Your task to perform on an android device: Toggle the flashlight Image 0: 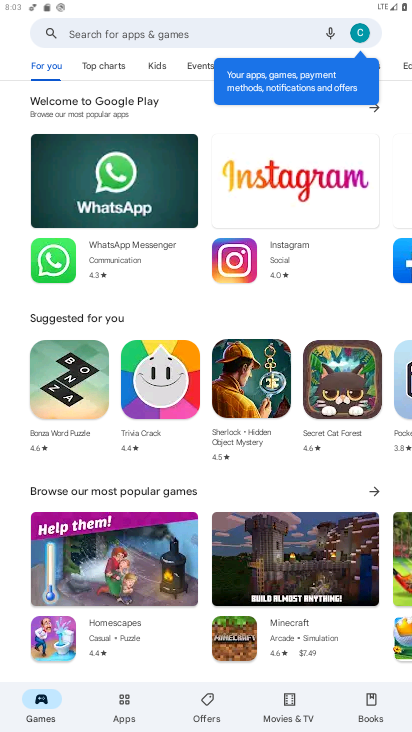
Step 0: press home button
Your task to perform on an android device: Toggle the flashlight Image 1: 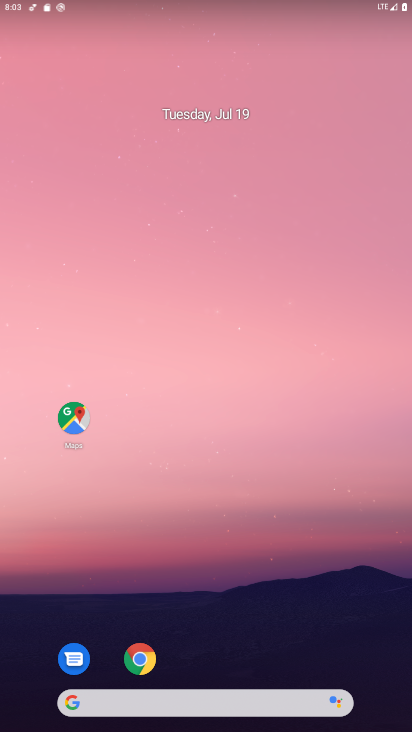
Step 1: drag from (203, 599) to (10, 207)
Your task to perform on an android device: Toggle the flashlight Image 2: 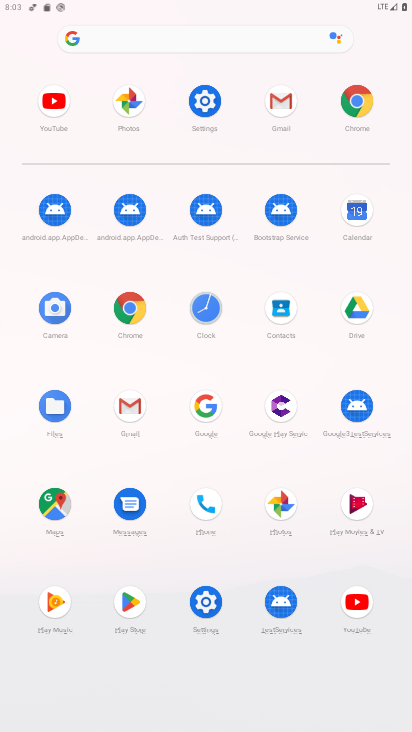
Step 2: click (196, 75)
Your task to perform on an android device: Toggle the flashlight Image 3: 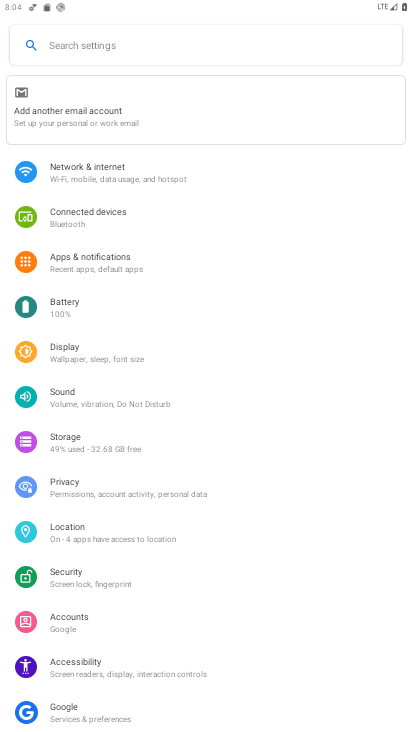
Step 3: click (155, 41)
Your task to perform on an android device: Toggle the flashlight Image 4: 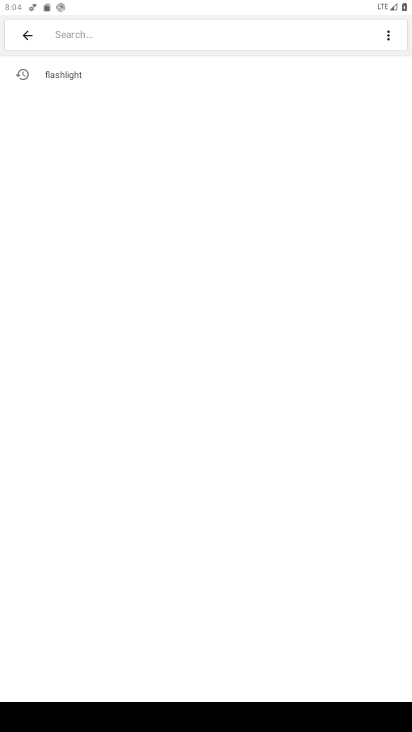
Step 4: type "flashlight"
Your task to perform on an android device: Toggle the flashlight Image 5: 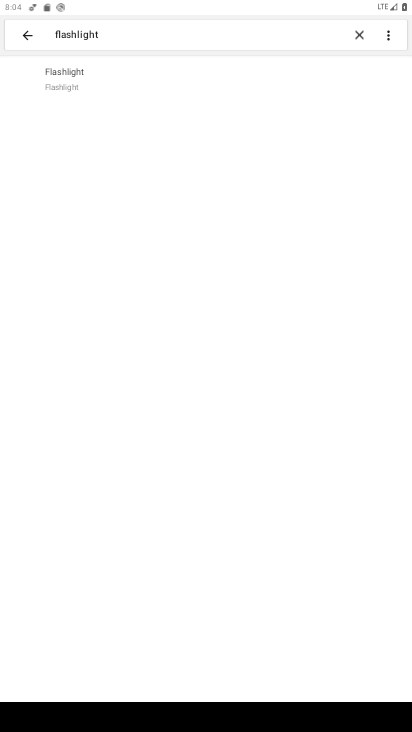
Step 5: click (85, 81)
Your task to perform on an android device: Toggle the flashlight Image 6: 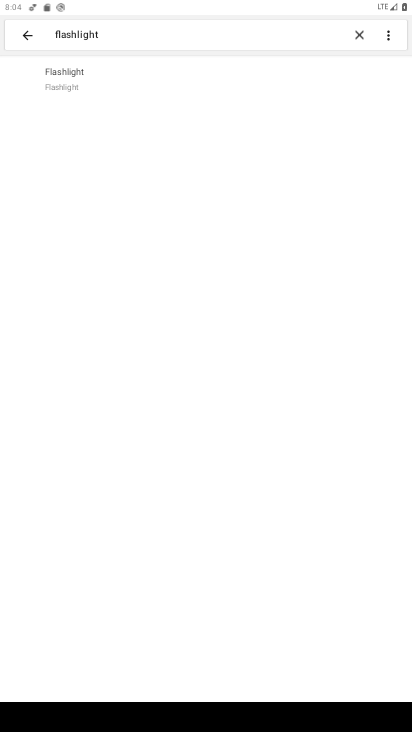
Step 6: click (84, 82)
Your task to perform on an android device: Toggle the flashlight Image 7: 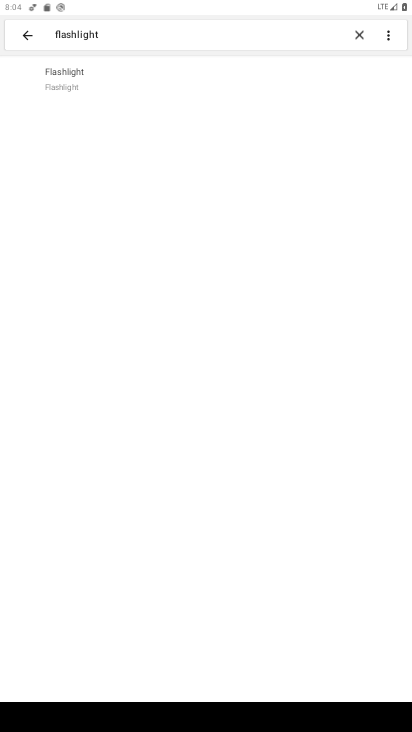
Step 7: task complete